Your task to perform on an android device: all mails in gmail Image 0: 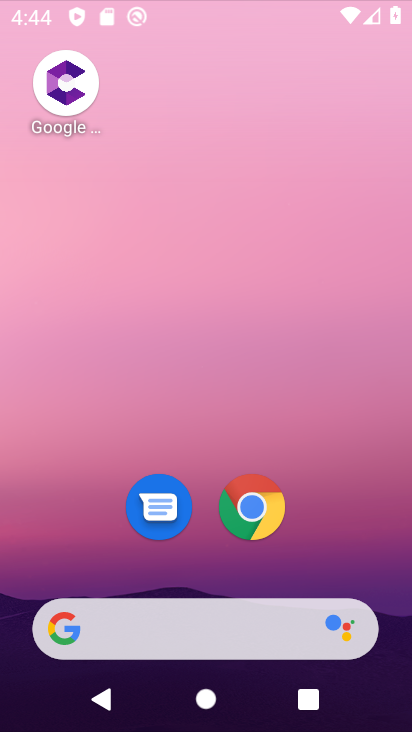
Step 0: drag from (321, 138) to (323, 92)
Your task to perform on an android device: all mails in gmail Image 1: 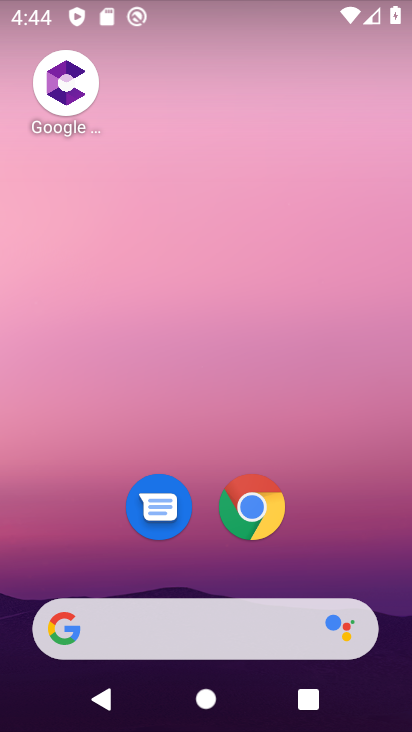
Step 1: drag from (347, 537) to (345, 109)
Your task to perform on an android device: all mails in gmail Image 2: 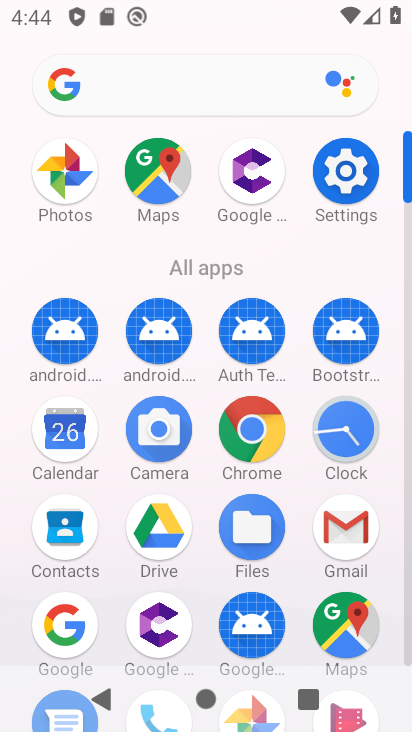
Step 2: click (344, 525)
Your task to perform on an android device: all mails in gmail Image 3: 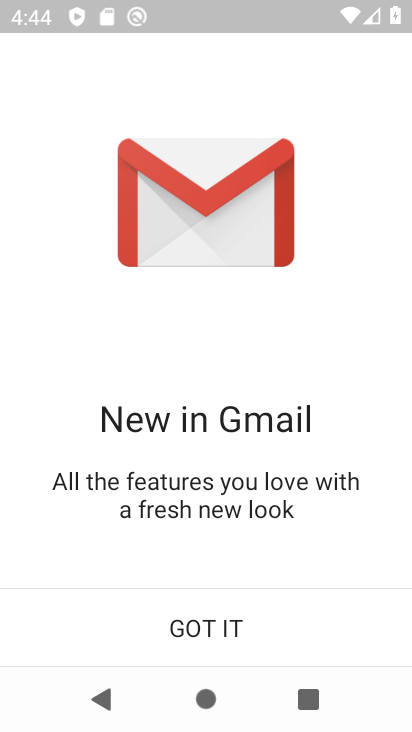
Step 3: click (192, 630)
Your task to perform on an android device: all mails in gmail Image 4: 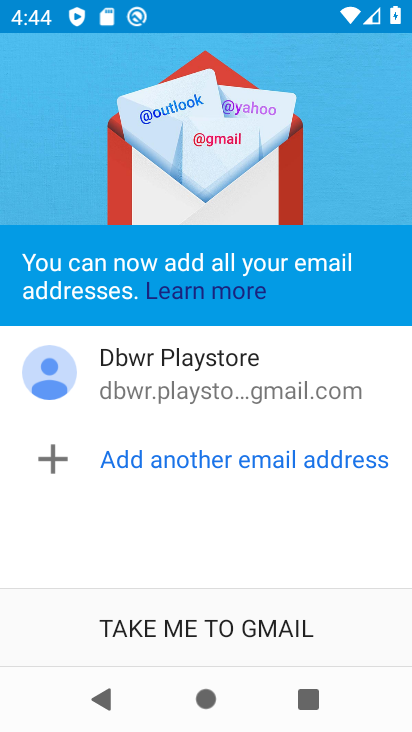
Step 4: click (168, 623)
Your task to perform on an android device: all mails in gmail Image 5: 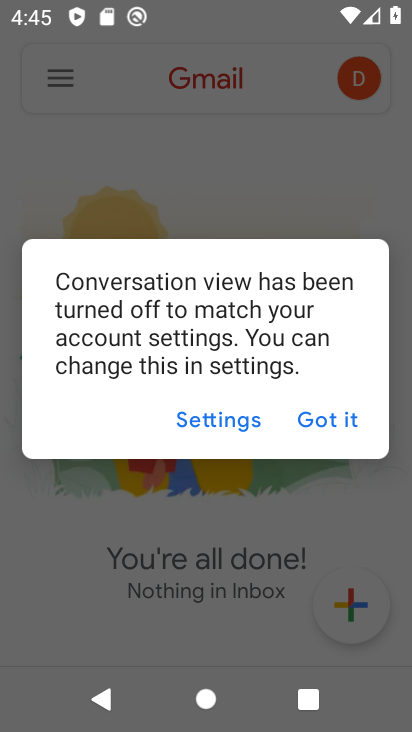
Step 5: click (348, 408)
Your task to perform on an android device: all mails in gmail Image 6: 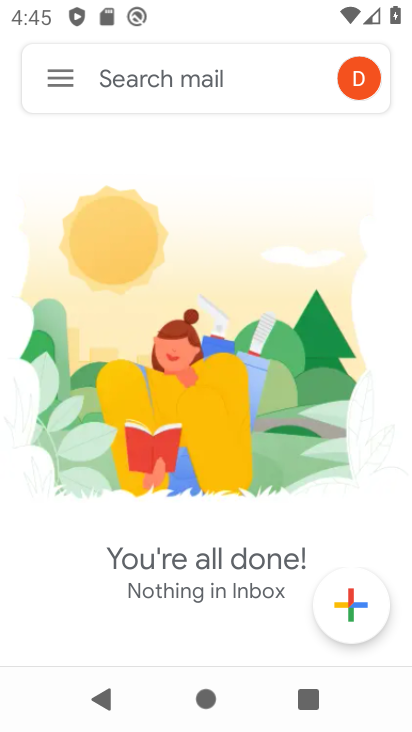
Step 6: click (58, 66)
Your task to perform on an android device: all mails in gmail Image 7: 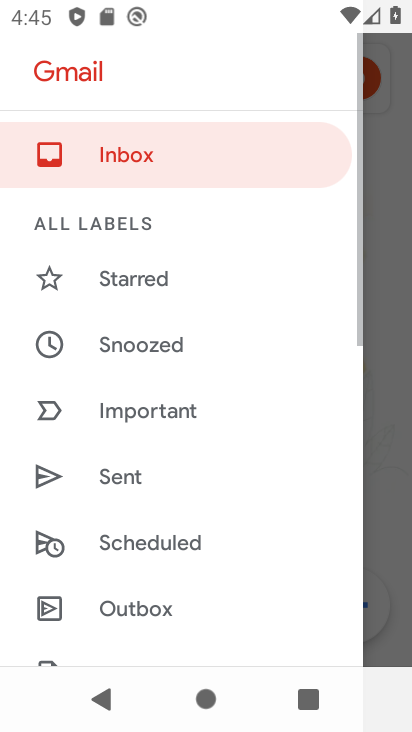
Step 7: drag from (150, 539) to (237, 251)
Your task to perform on an android device: all mails in gmail Image 8: 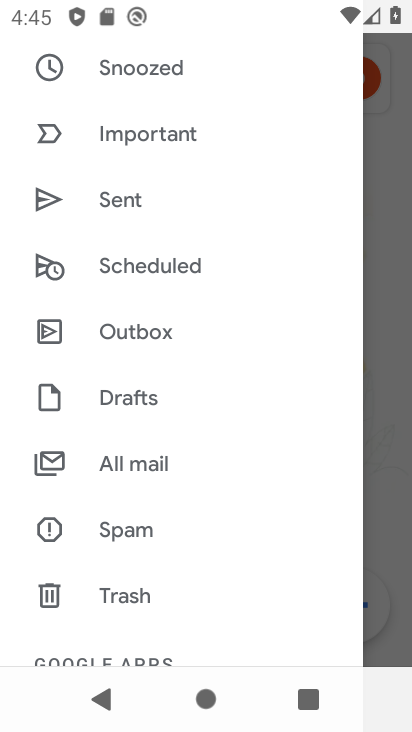
Step 8: click (143, 458)
Your task to perform on an android device: all mails in gmail Image 9: 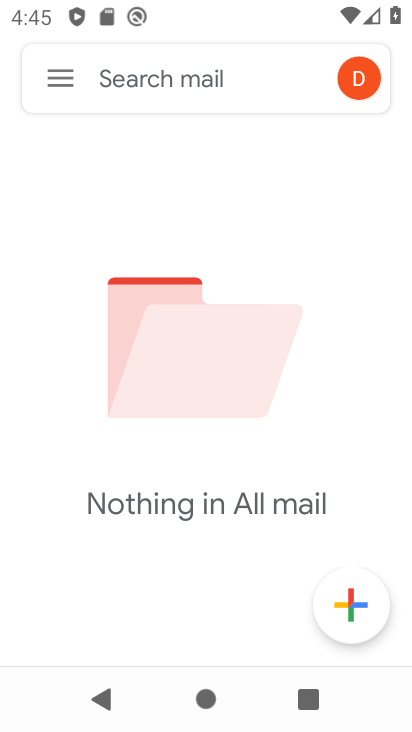
Step 9: task complete